Your task to perform on an android device: What is the news today? Image 0: 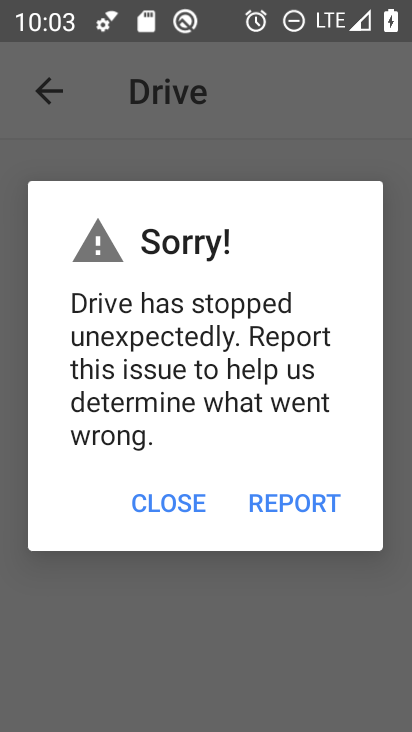
Step 0: press home button
Your task to perform on an android device: What is the news today? Image 1: 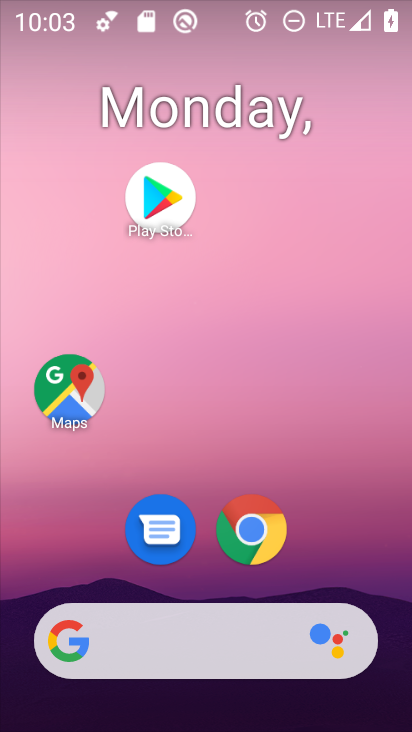
Step 1: drag from (19, 281) to (411, 283)
Your task to perform on an android device: What is the news today? Image 2: 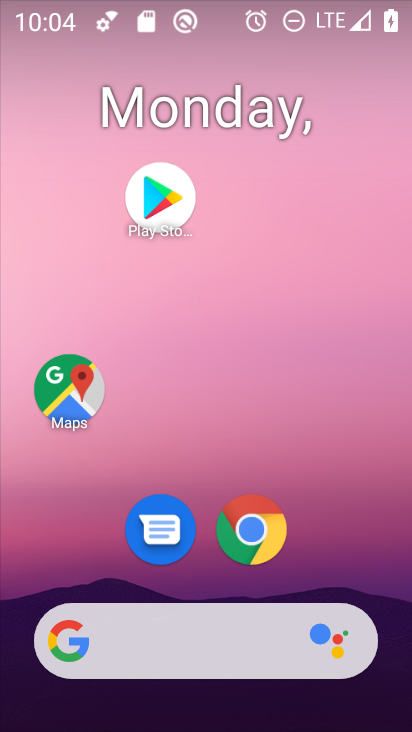
Step 2: click (185, 641)
Your task to perform on an android device: What is the news today? Image 3: 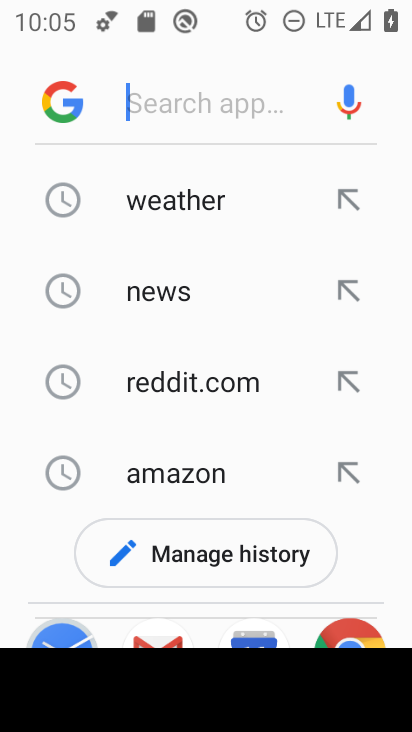
Step 3: click (169, 291)
Your task to perform on an android device: What is the news today? Image 4: 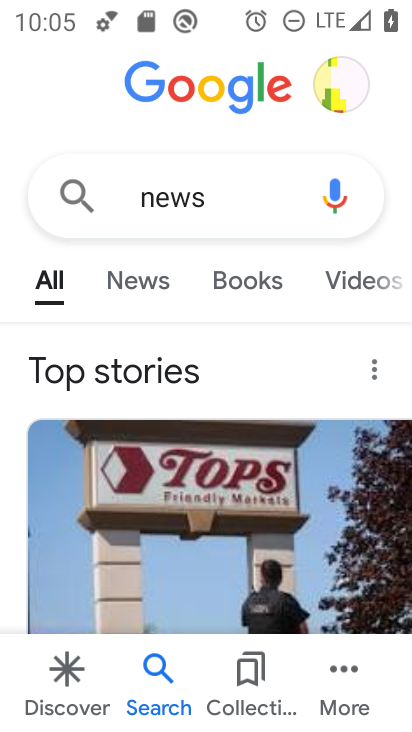
Step 4: task complete